Your task to perform on an android device: When is my next meeting? Image 0: 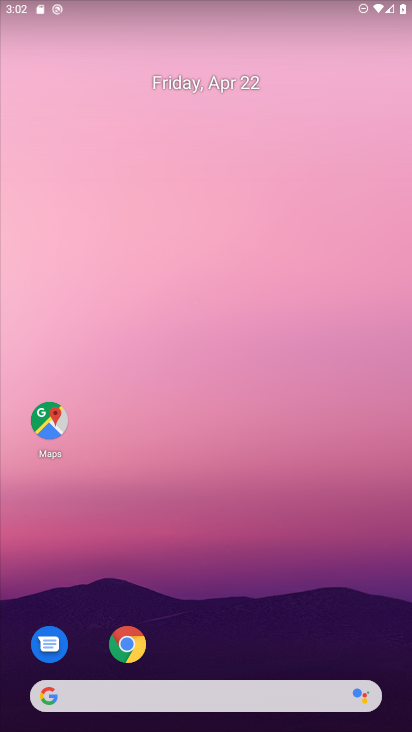
Step 0: drag from (273, 571) to (335, 115)
Your task to perform on an android device: When is my next meeting? Image 1: 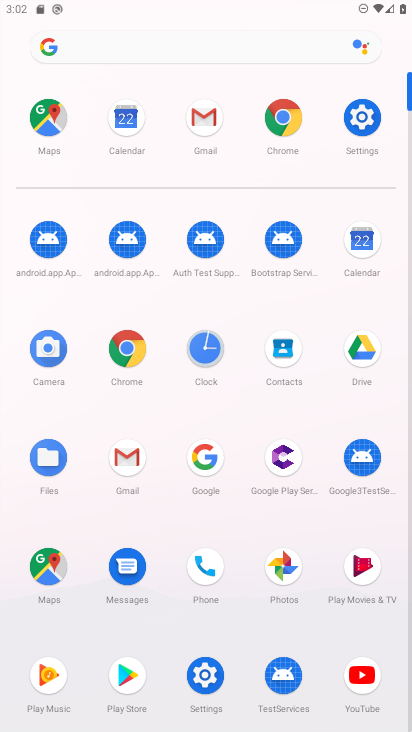
Step 1: click (356, 242)
Your task to perform on an android device: When is my next meeting? Image 2: 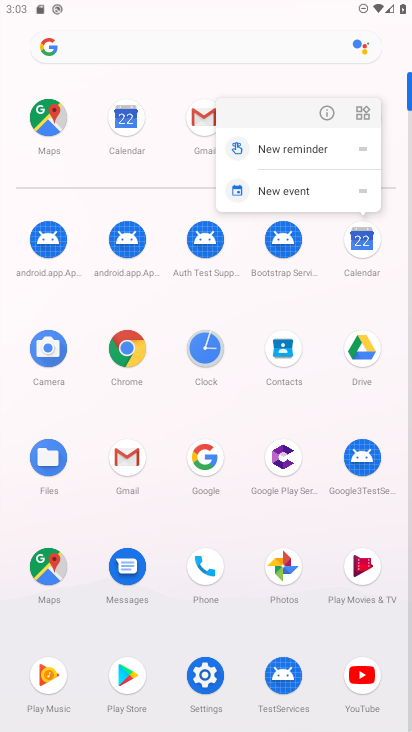
Step 2: click (363, 239)
Your task to perform on an android device: When is my next meeting? Image 3: 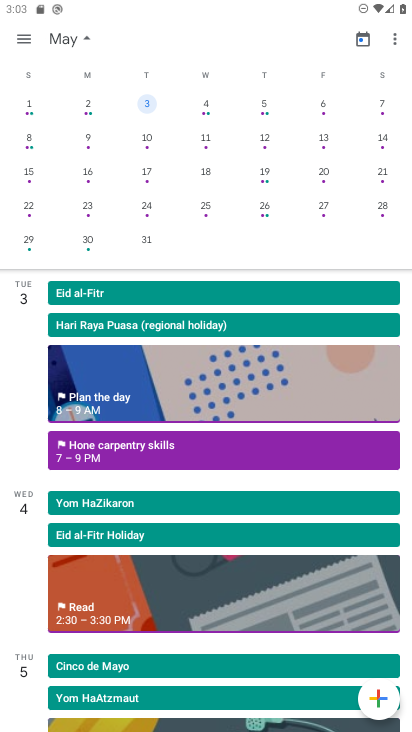
Step 3: drag from (49, 165) to (379, 150)
Your task to perform on an android device: When is my next meeting? Image 4: 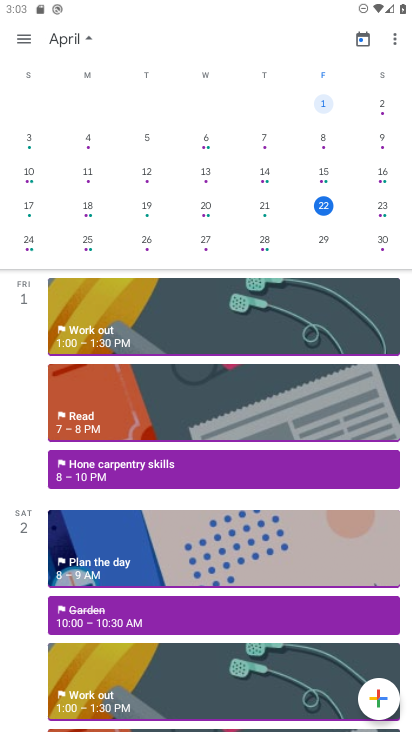
Step 4: click (310, 198)
Your task to perform on an android device: When is my next meeting? Image 5: 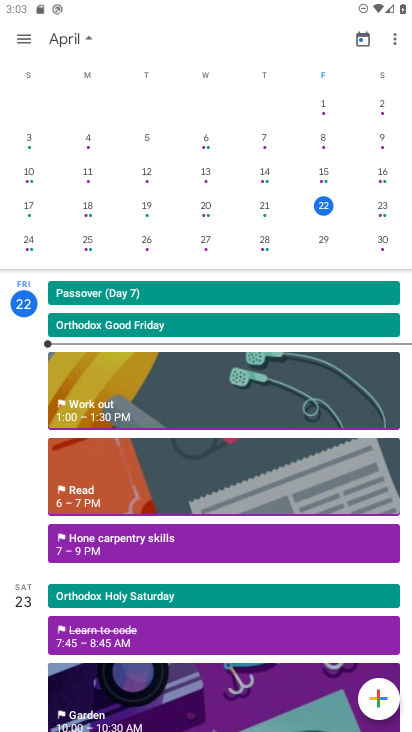
Step 5: task complete